Your task to perform on an android device: toggle sleep mode Image 0: 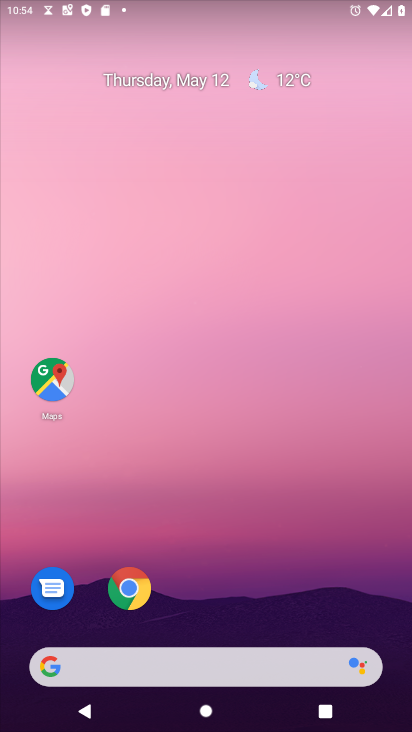
Step 0: drag from (203, 608) to (262, 334)
Your task to perform on an android device: toggle sleep mode Image 1: 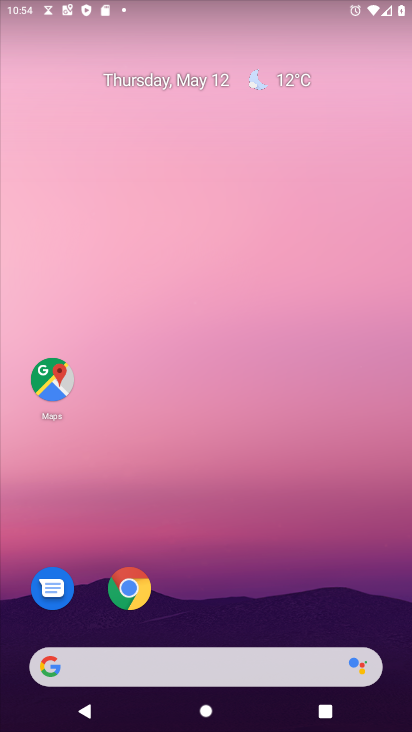
Step 1: drag from (259, 627) to (277, 207)
Your task to perform on an android device: toggle sleep mode Image 2: 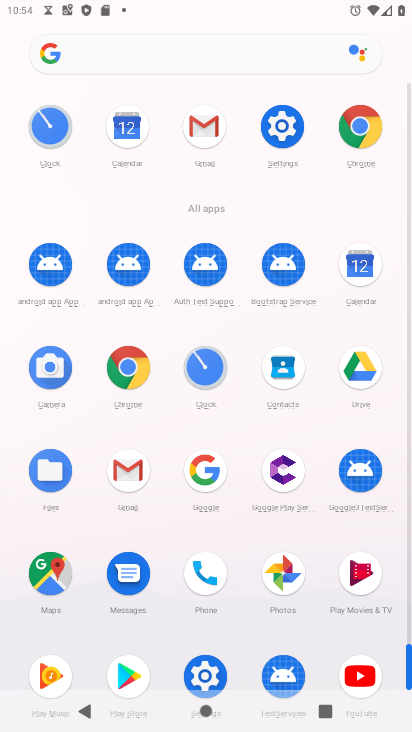
Step 2: click (285, 126)
Your task to perform on an android device: toggle sleep mode Image 3: 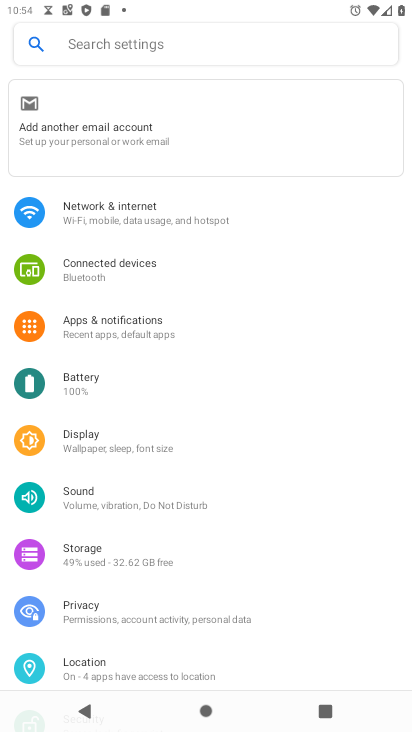
Step 3: click (133, 448)
Your task to perform on an android device: toggle sleep mode Image 4: 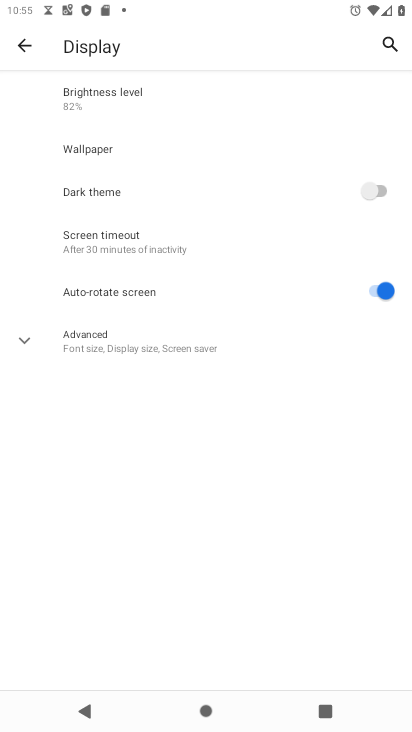
Step 4: click (120, 251)
Your task to perform on an android device: toggle sleep mode Image 5: 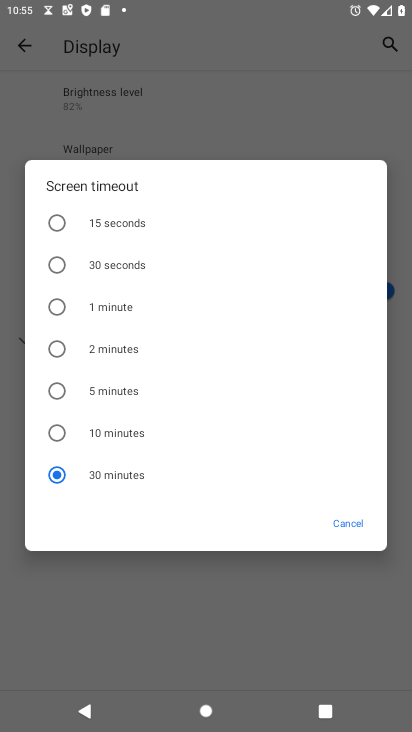
Step 5: click (362, 518)
Your task to perform on an android device: toggle sleep mode Image 6: 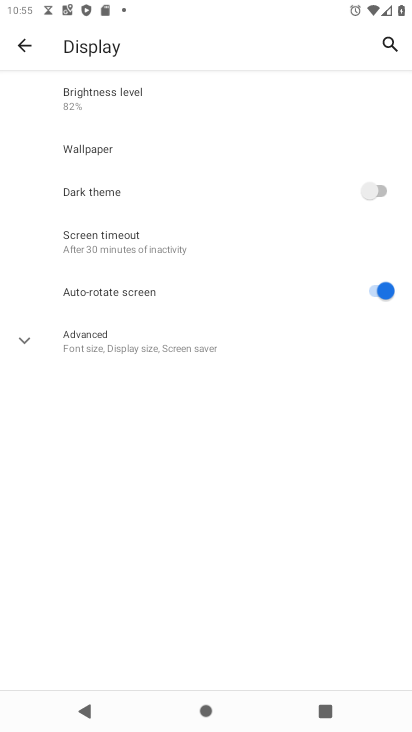
Step 6: click (91, 335)
Your task to perform on an android device: toggle sleep mode Image 7: 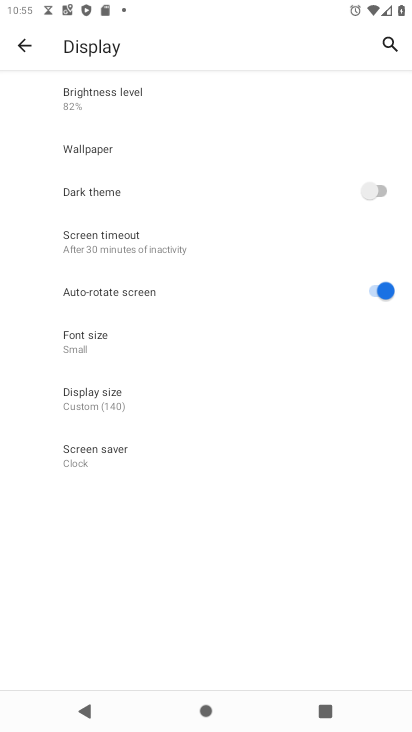
Step 7: task complete